Your task to perform on an android device: create a new album in the google photos Image 0: 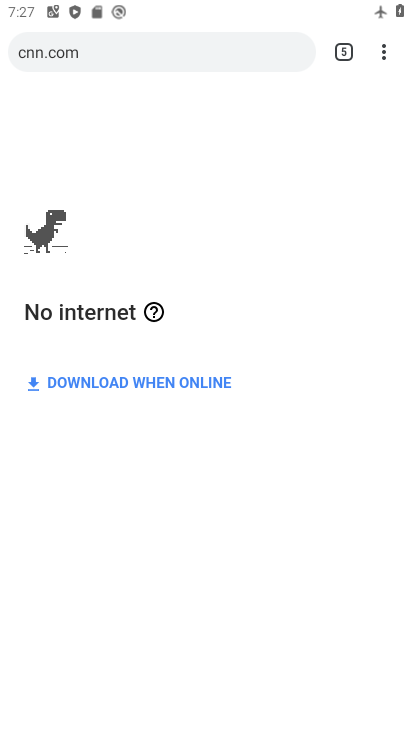
Step 0: press home button
Your task to perform on an android device: create a new album in the google photos Image 1: 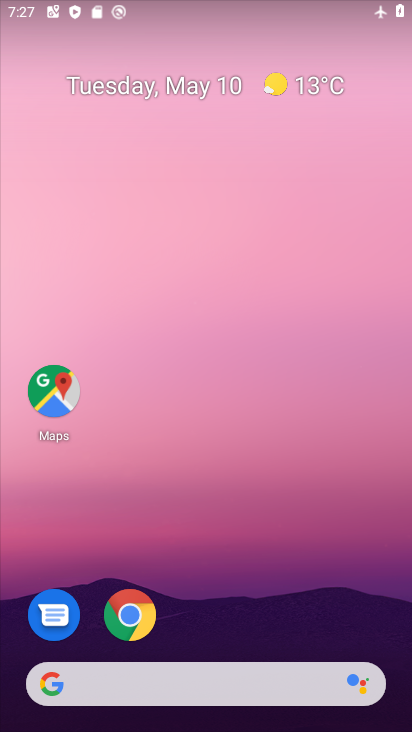
Step 1: drag from (238, 543) to (168, 168)
Your task to perform on an android device: create a new album in the google photos Image 2: 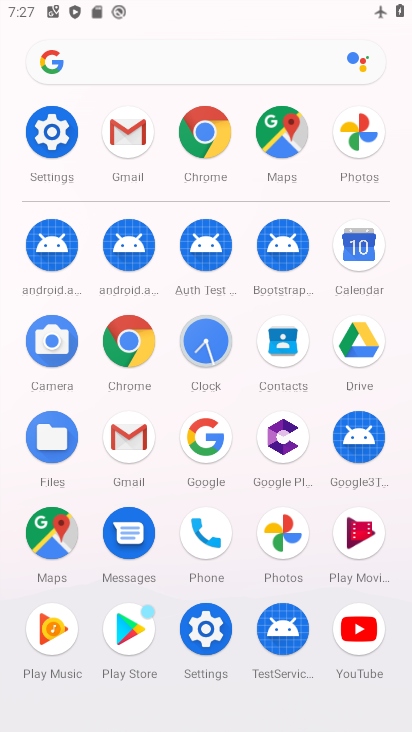
Step 2: click (362, 123)
Your task to perform on an android device: create a new album in the google photos Image 3: 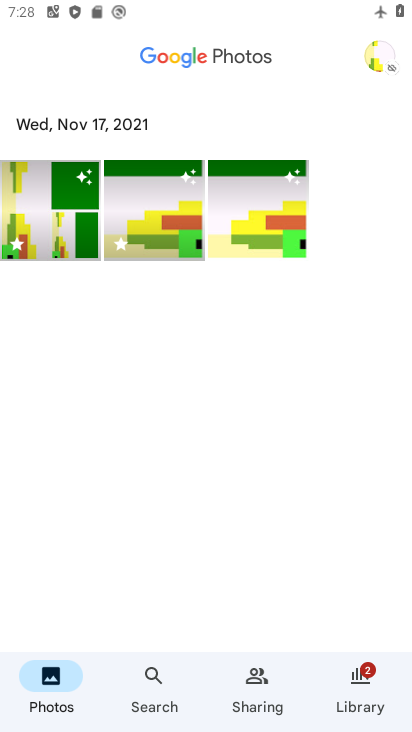
Step 3: click (354, 684)
Your task to perform on an android device: create a new album in the google photos Image 4: 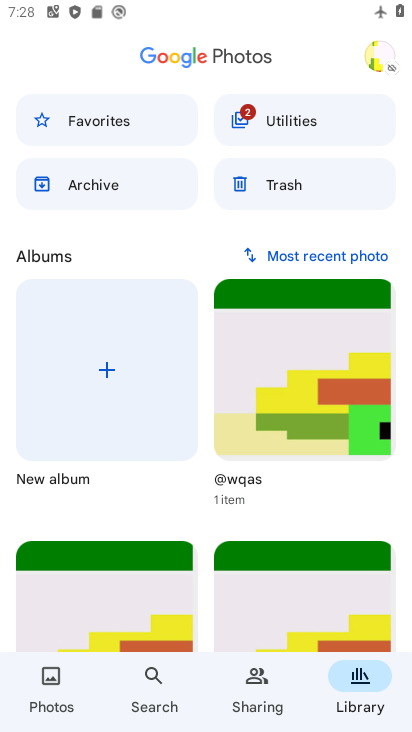
Step 4: click (110, 365)
Your task to perform on an android device: create a new album in the google photos Image 5: 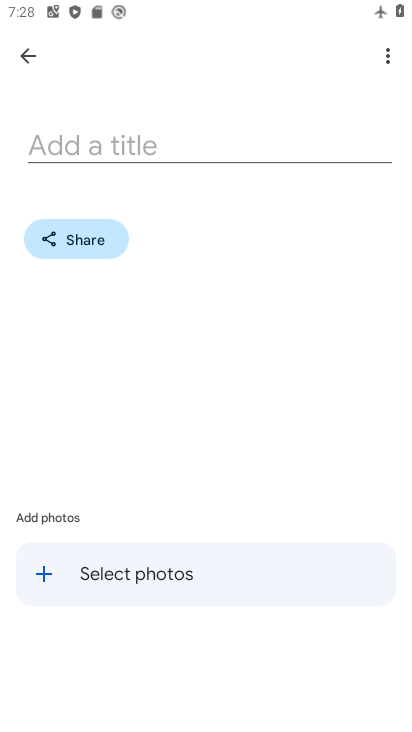
Step 5: click (113, 133)
Your task to perform on an android device: create a new album in the google photos Image 6: 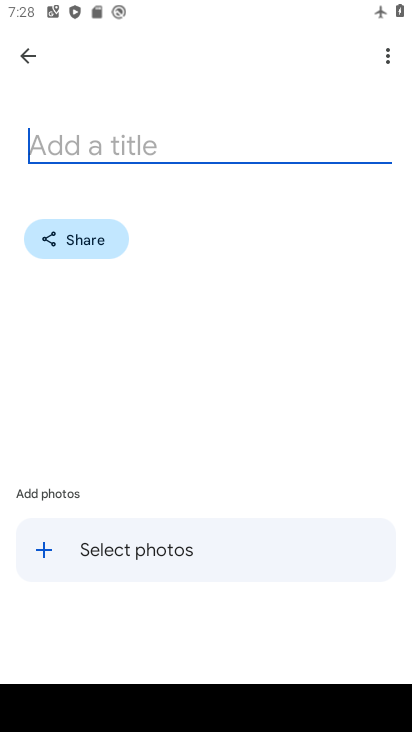
Step 6: type "rdyxtjgcfg"
Your task to perform on an android device: create a new album in the google photos Image 7: 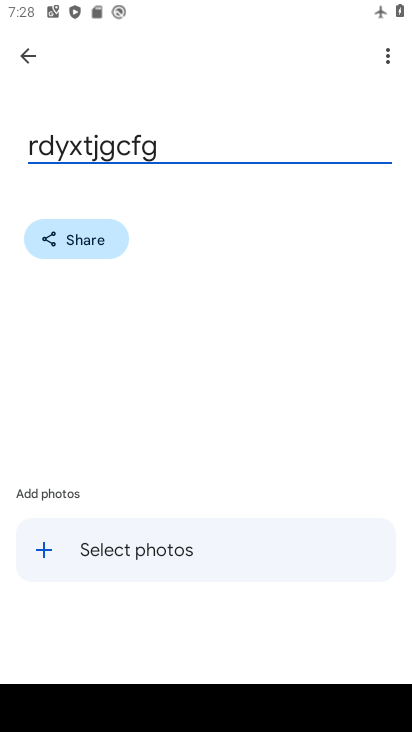
Step 7: click (55, 538)
Your task to perform on an android device: create a new album in the google photos Image 8: 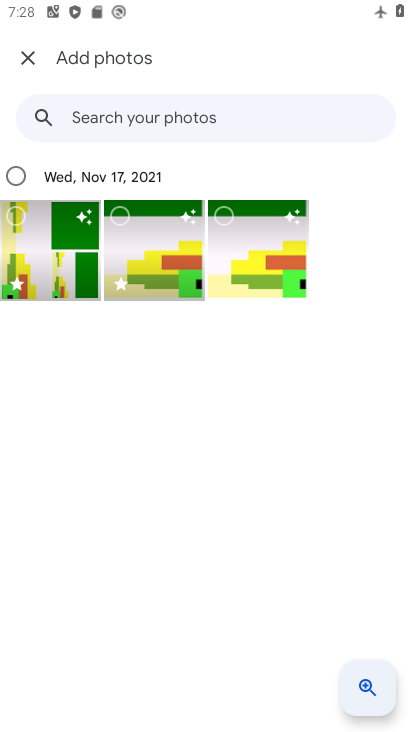
Step 8: click (178, 262)
Your task to perform on an android device: create a new album in the google photos Image 9: 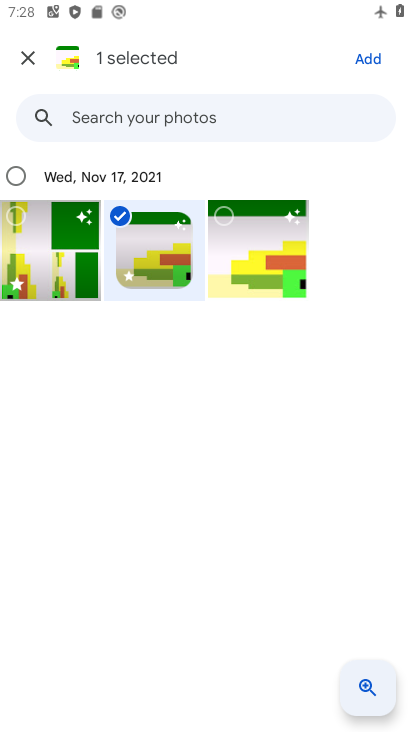
Step 9: click (369, 60)
Your task to perform on an android device: create a new album in the google photos Image 10: 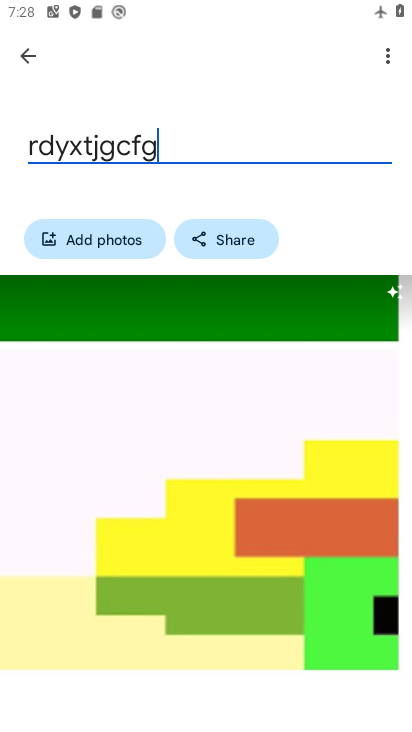
Step 10: click (28, 51)
Your task to perform on an android device: create a new album in the google photos Image 11: 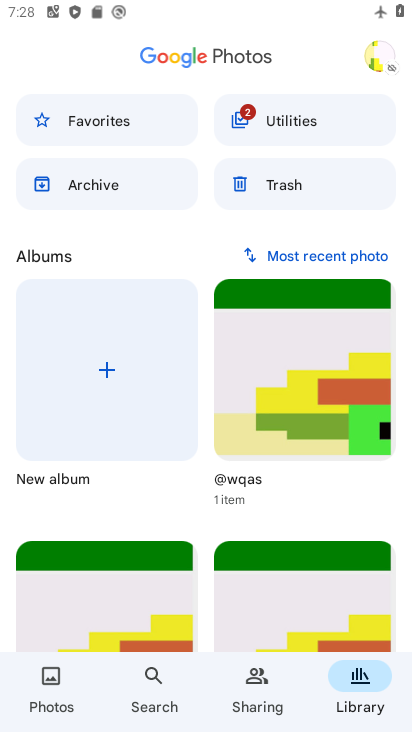
Step 11: task complete